Your task to perform on an android device: See recent photos Image 0: 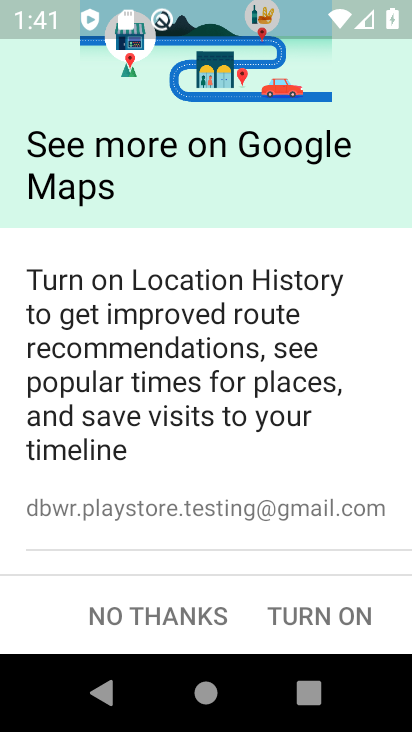
Step 0: press home button
Your task to perform on an android device: See recent photos Image 1: 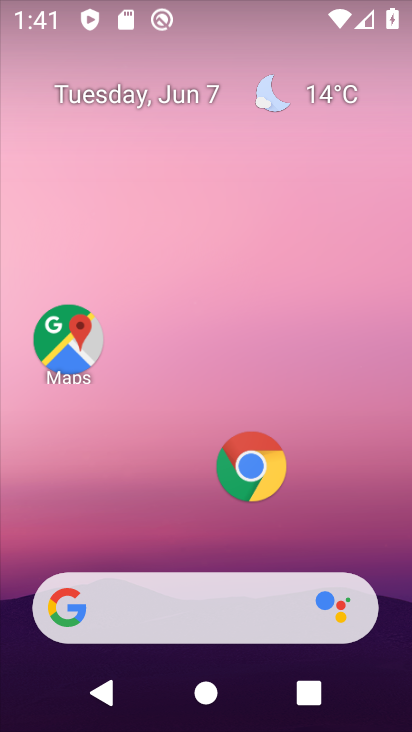
Step 1: drag from (173, 722) to (153, 78)
Your task to perform on an android device: See recent photos Image 2: 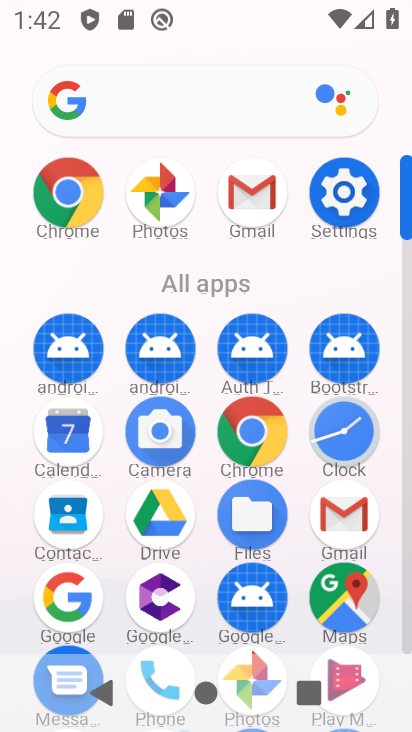
Step 2: click (156, 198)
Your task to perform on an android device: See recent photos Image 3: 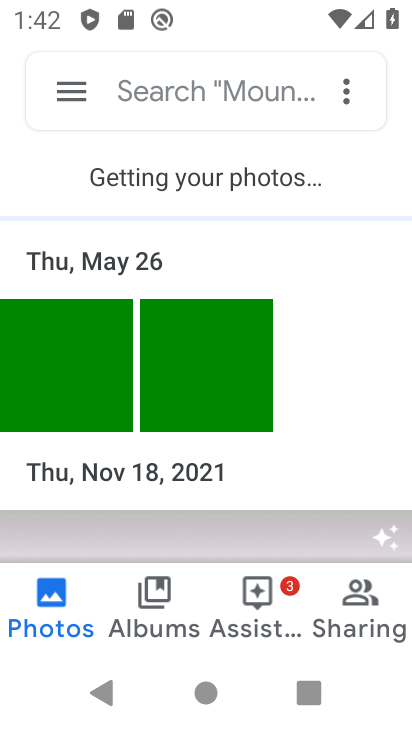
Step 3: click (109, 390)
Your task to perform on an android device: See recent photos Image 4: 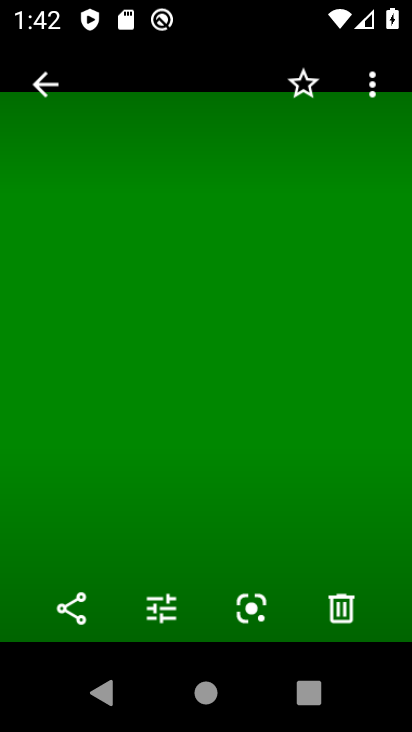
Step 4: click (47, 87)
Your task to perform on an android device: See recent photos Image 5: 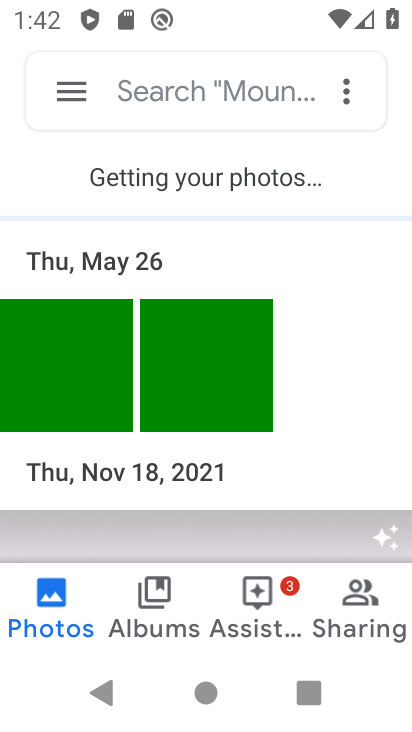
Step 5: task complete